Your task to perform on an android device: turn on data saver in the chrome app Image 0: 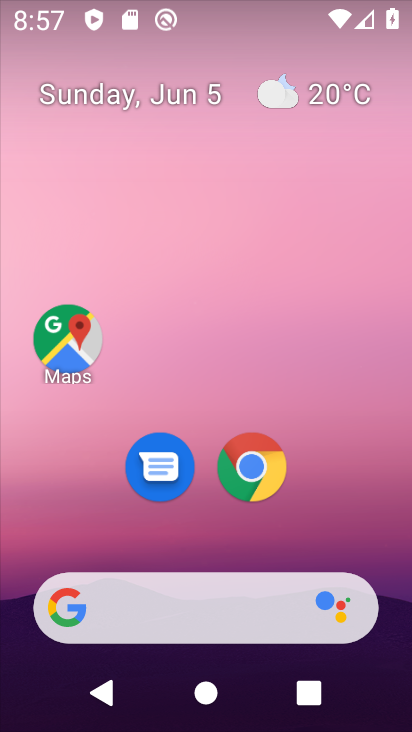
Step 0: click (247, 457)
Your task to perform on an android device: turn on data saver in the chrome app Image 1: 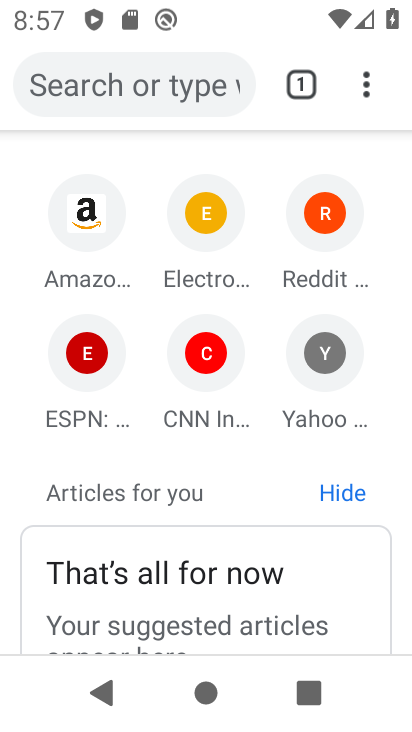
Step 1: click (352, 96)
Your task to perform on an android device: turn on data saver in the chrome app Image 2: 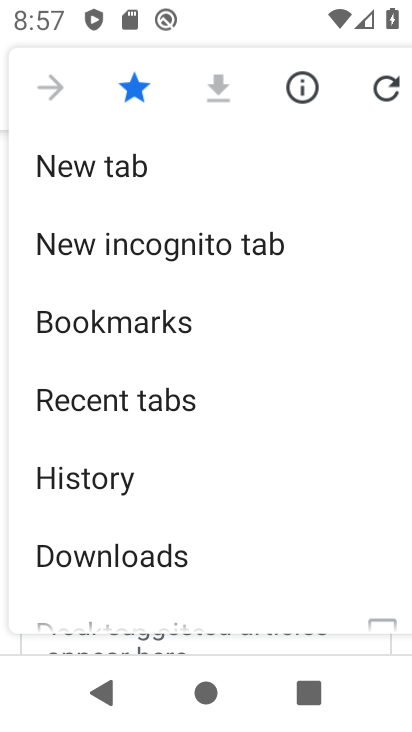
Step 2: drag from (140, 561) to (137, 289)
Your task to perform on an android device: turn on data saver in the chrome app Image 3: 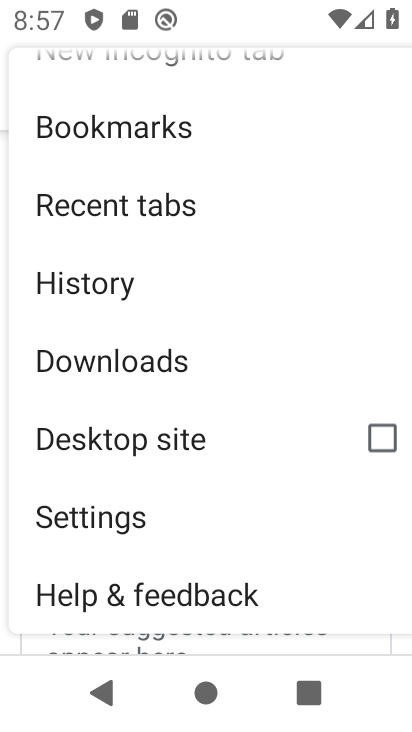
Step 3: click (114, 530)
Your task to perform on an android device: turn on data saver in the chrome app Image 4: 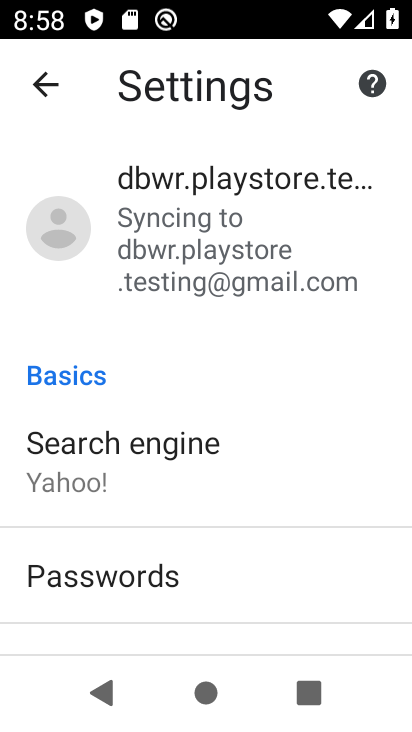
Step 4: drag from (143, 561) to (312, 127)
Your task to perform on an android device: turn on data saver in the chrome app Image 5: 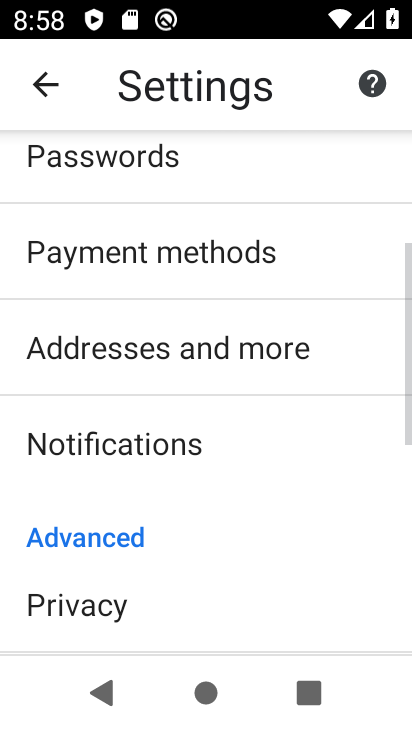
Step 5: drag from (141, 624) to (122, 222)
Your task to perform on an android device: turn on data saver in the chrome app Image 6: 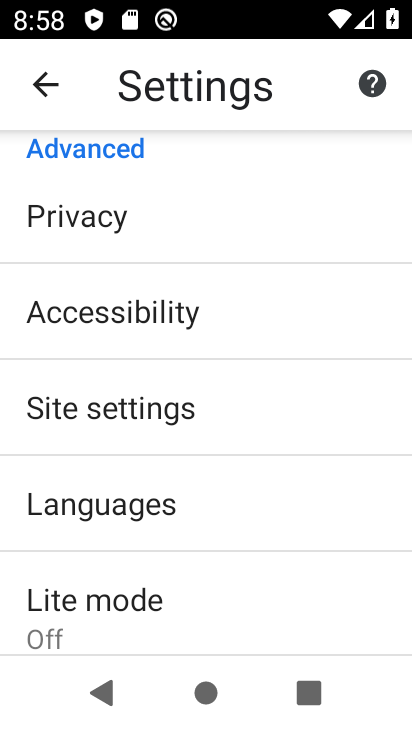
Step 6: click (106, 635)
Your task to perform on an android device: turn on data saver in the chrome app Image 7: 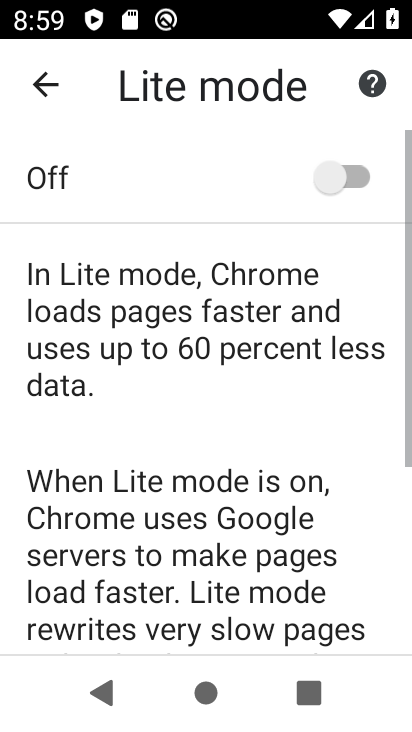
Step 7: click (349, 184)
Your task to perform on an android device: turn on data saver in the chrome app Image 8: 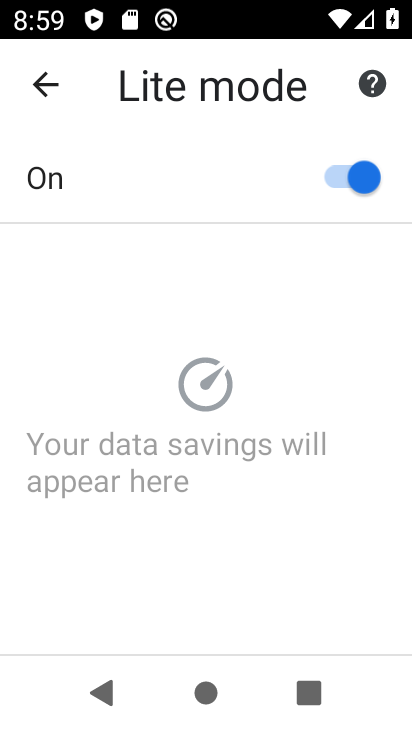
Step 8: task complete